Your task to perform on an android device: turn smart compose on in the gmail app Image 0: 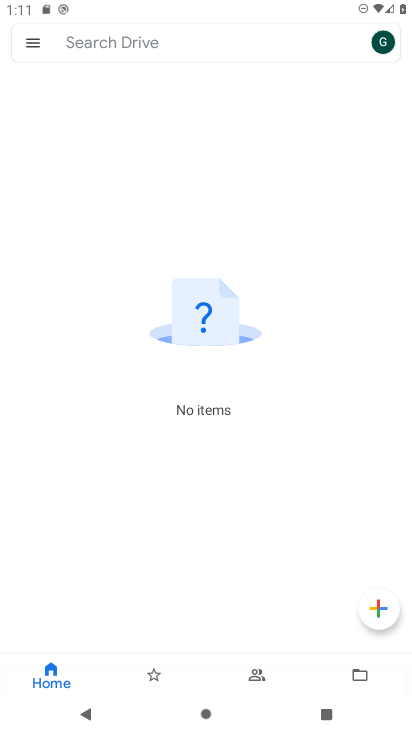
Step 0: press home button
Your task to perform on an android device: turn smart compose on in the gmail app Image 1: 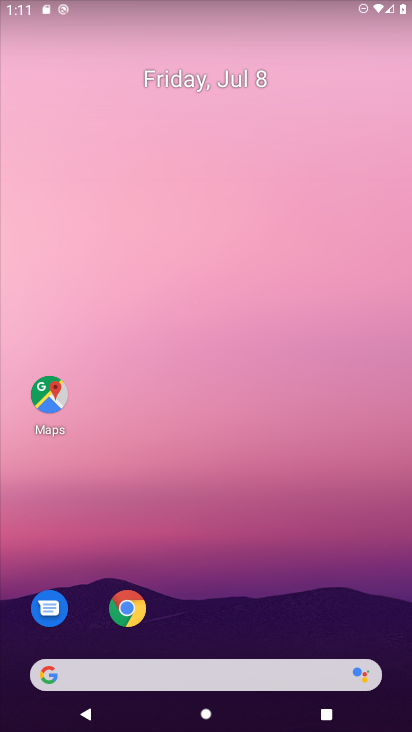
Step 1: drag from (292, 592) to (291, 142)
Your task to perform on an android device: turn smart compose on in the gmail app Image 2: 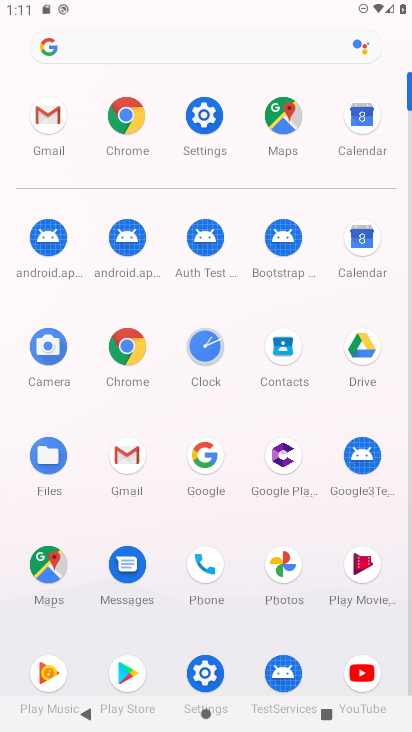
Step 2: click (58, 133)
Your task to perform on an android device: turn smart compose on in the gmail app Image 3: 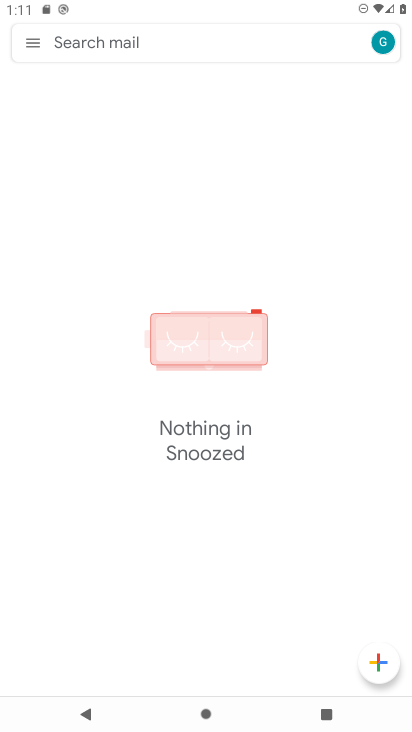
Step 3: click (44, 56)
Your task to perform on an android device: turn smart compose on in the gmail app Image 4: 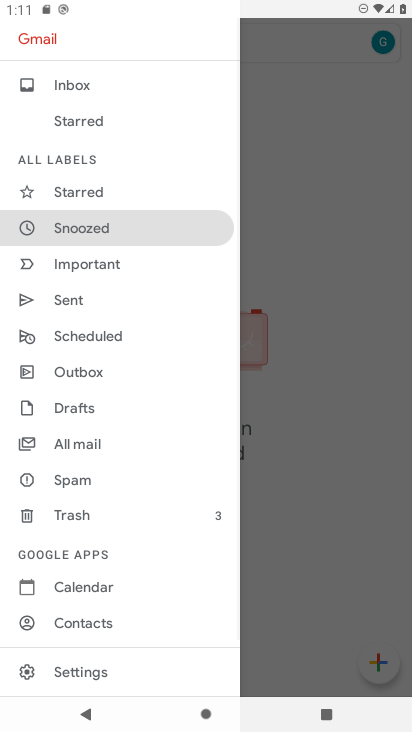
Step 4: click (79, 660)
Your task to perform on an android device: turn smart compose on in the gmail app Image 5: 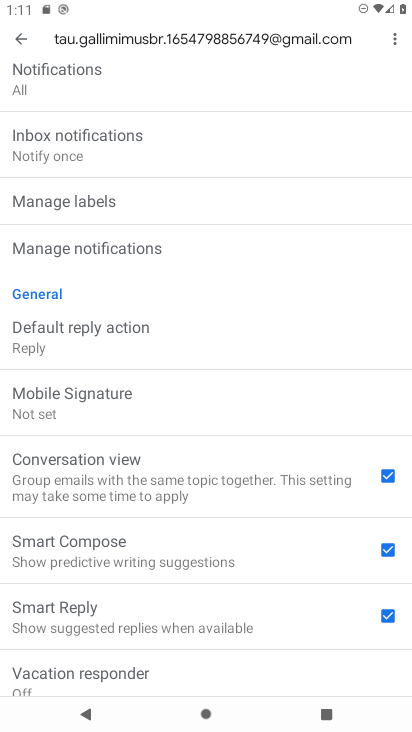
Step 5: drag from (124, 626) to (139, 208)
Your task to perform on an android device: turn smart compose on in the gmail app Image 6: 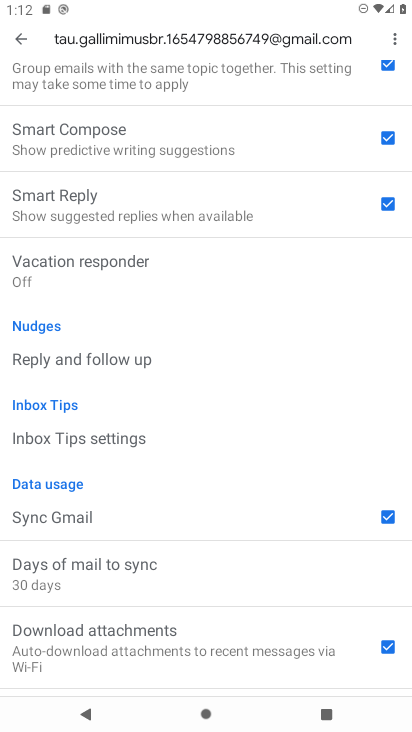
Step 6: click (398, 145)
Your task to perform on an android device: turn smart compose on in the gmail app Image 7: 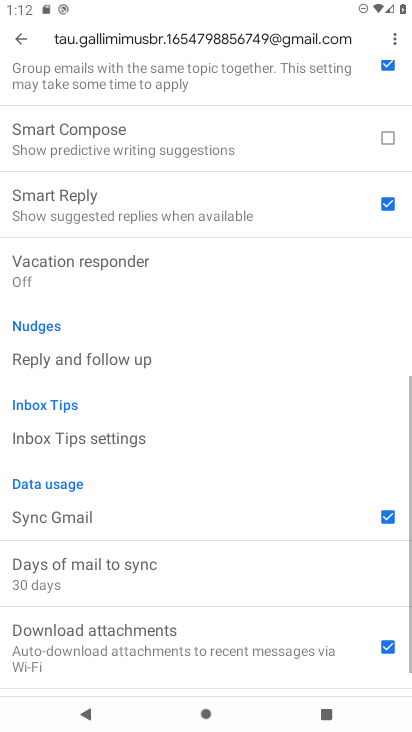
Step 7: task complete